Your task to perform on an android device: open a bookmark in the chrome app Image 0: 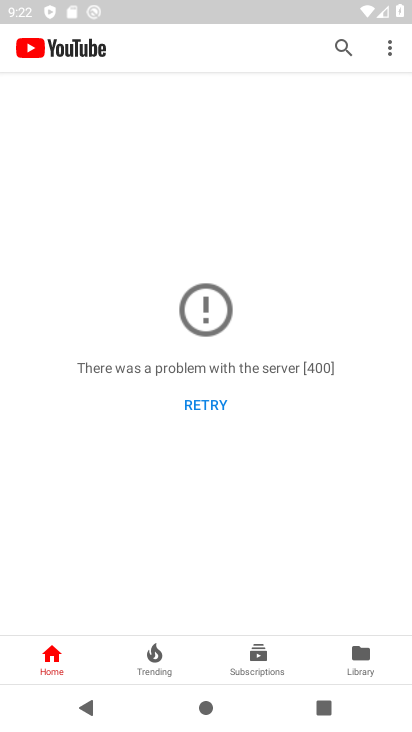
Step 0: press home button
Your task to perform on an android device: open a bookmark in the chrome app Image 1: 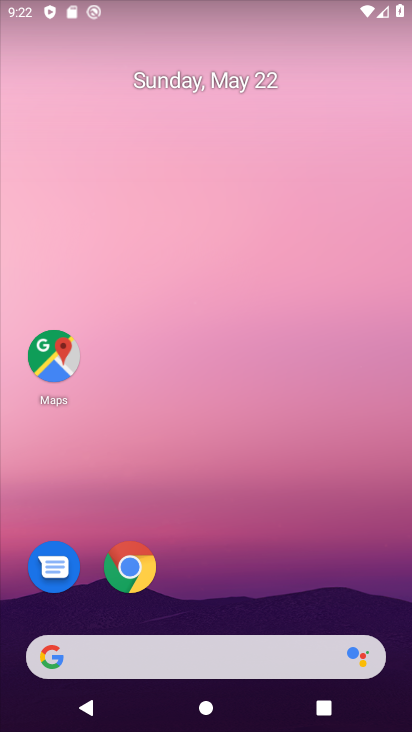
Step 1: click (125, 554)
Your task to perform on an android device: open a bookmark in the chrome app Image 2: 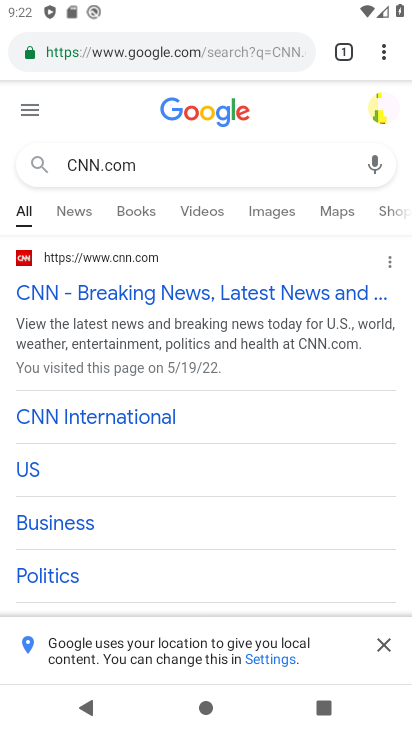
Step 2: click (387, 51)
Your task to perform on an android device: open a bookmark in the chrome app Image 3: 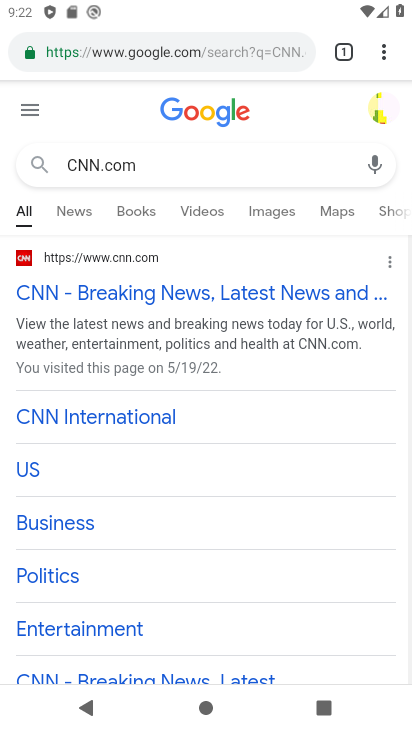
Step 3: click (387, 50)
Your task to perform on an android device: open a bookmark in the chrome app Image 4: 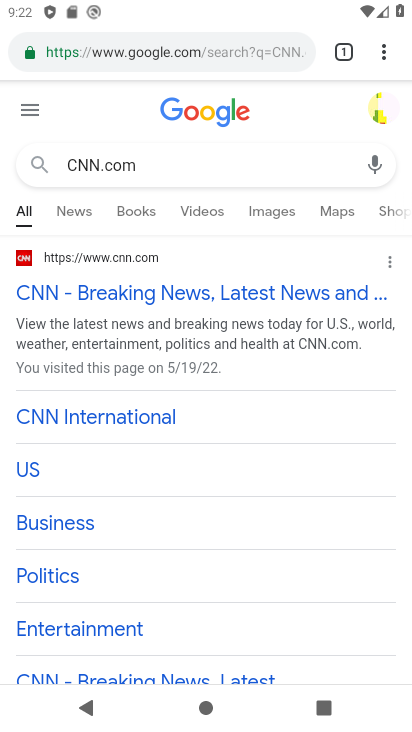
Step 4: click (384, 43)
Your task to perform on an android device: open a bookmark in the chrome app Image 5: 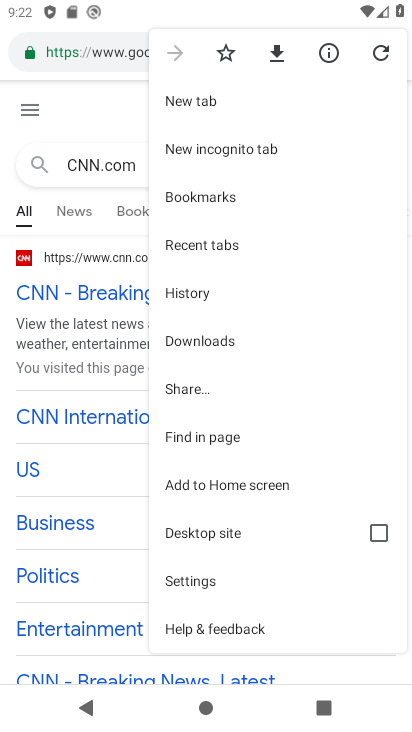
Step 5: click (213, 203)
Your task to perform on an android device: open a bookmark in the chrome app Image 6: 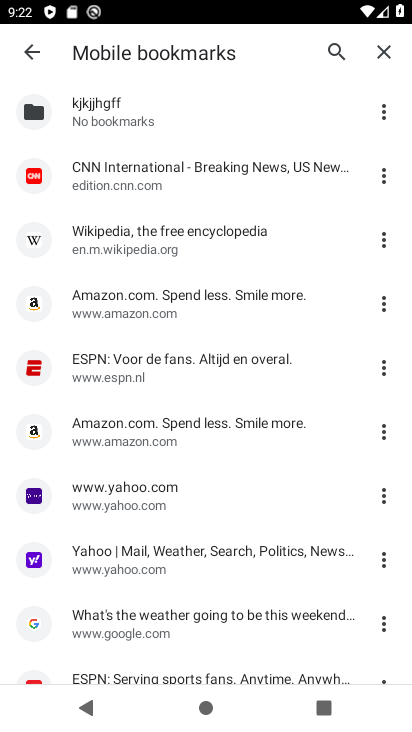
Step 6: task complete